Your task to perform on an android device: turn off notifications in google photos Image 0: 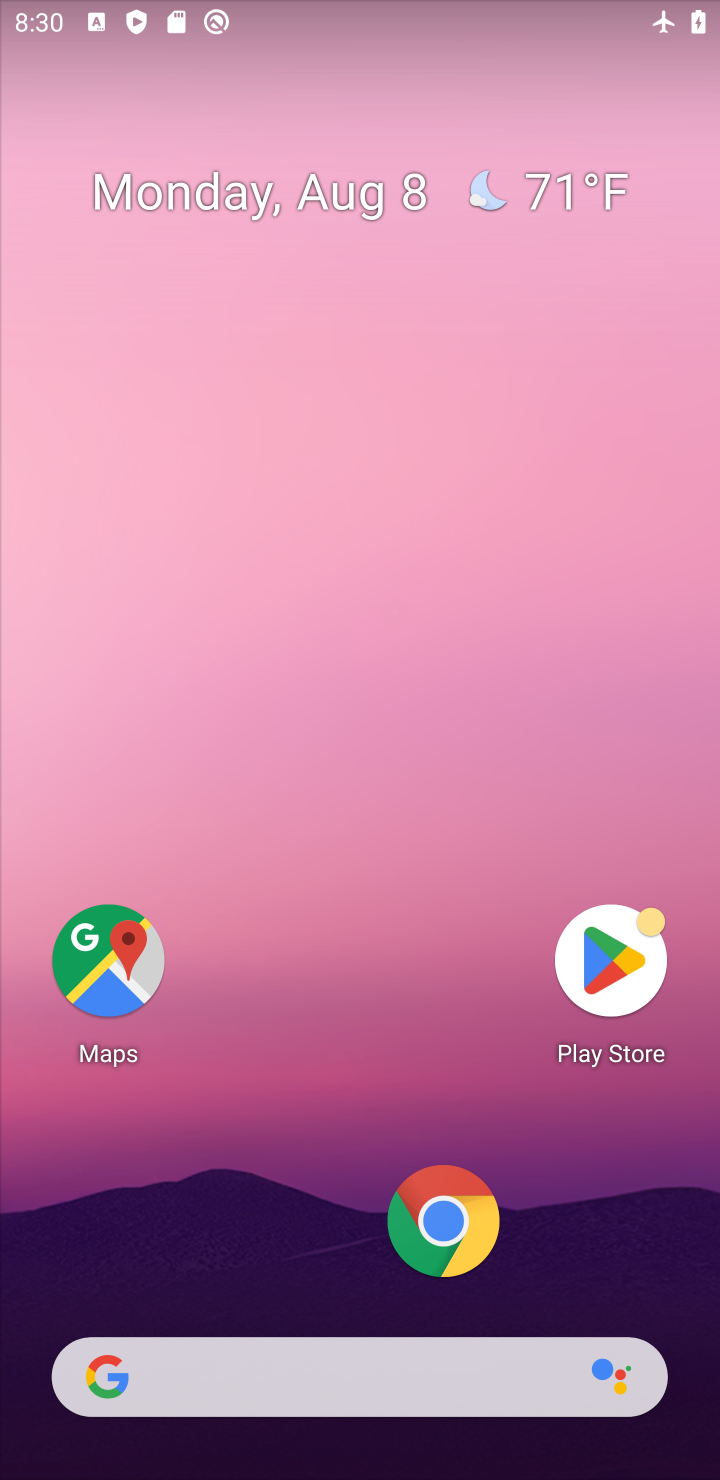
Step 0: drag from (598, 20) to (591, 1195)
Your task to perform on an android device: turn off notifications in google photos Image 1: 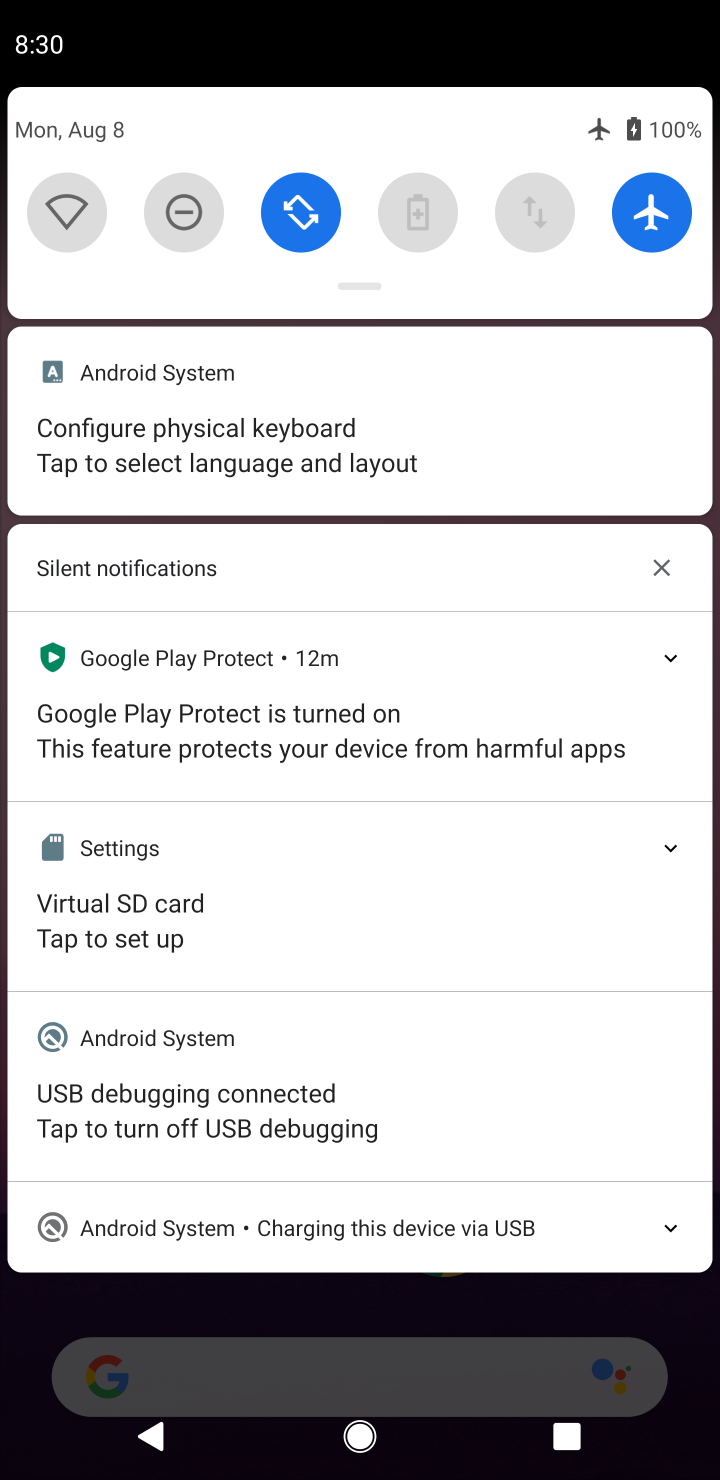
Step 1: click (418, 239)
Your task to perform on an android device: turn off notifications in google photos Image 2: 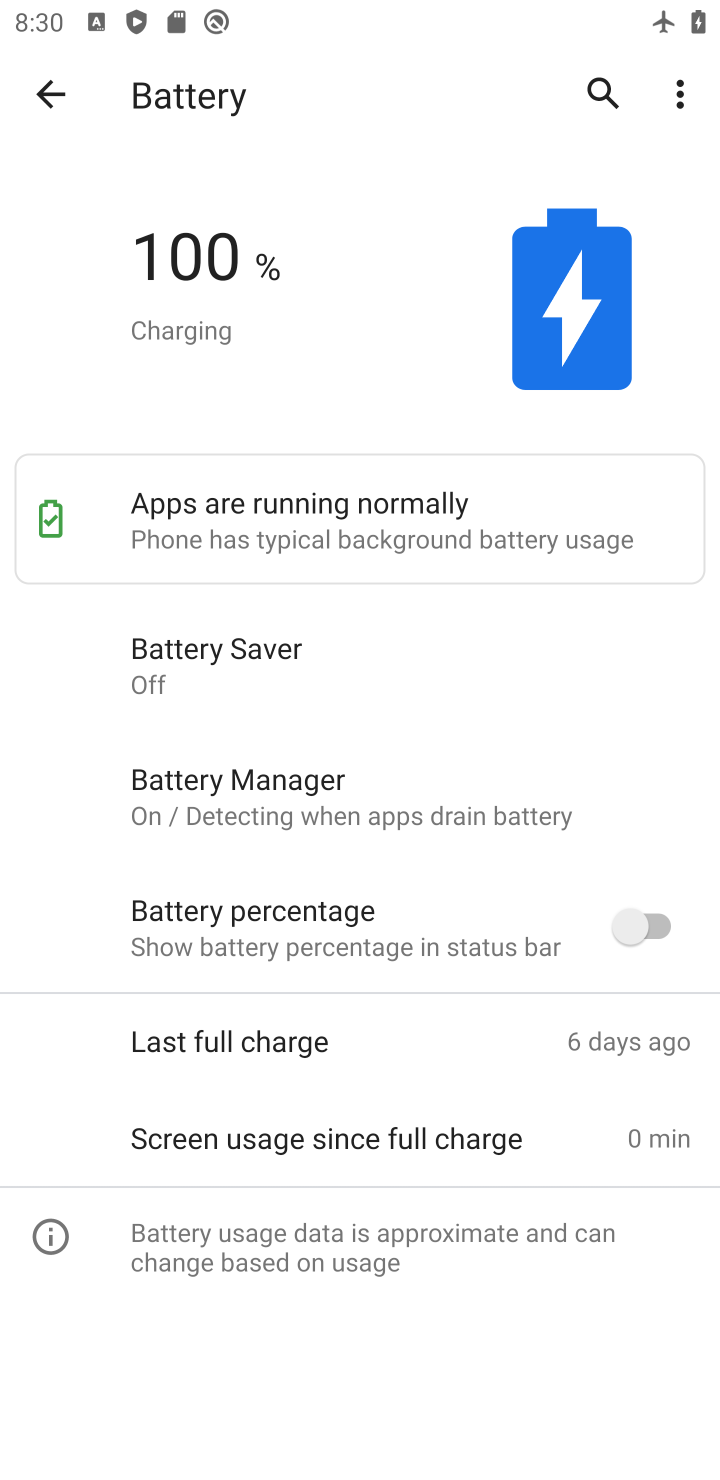
Step 2: task complete